Your task to perform on an android device: allow cookies in the chrome app Image 0: 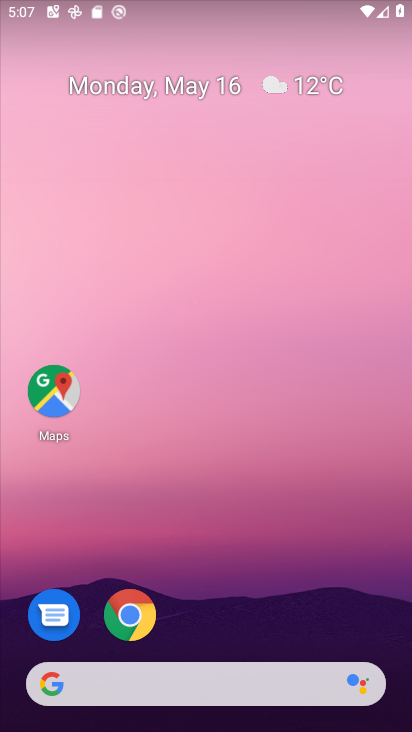
Step 0: drag from (231, 622) to (231, 182)
Your task to perform on an android device: allow cookies in the chrome app Image 1: 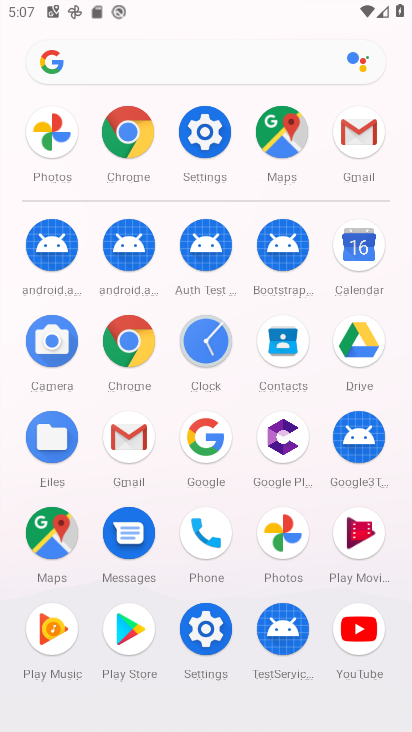
Step 1: click (126, 180)
Your task to perform on an android device: allow cookies in the chrome app Image 2: 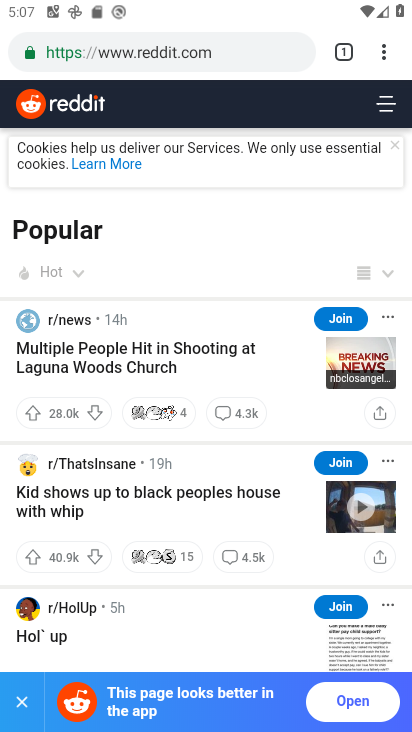
Step 2: click (382, 59)
Your task to perform on an android device: allow cookies in the chrome app Image 3: 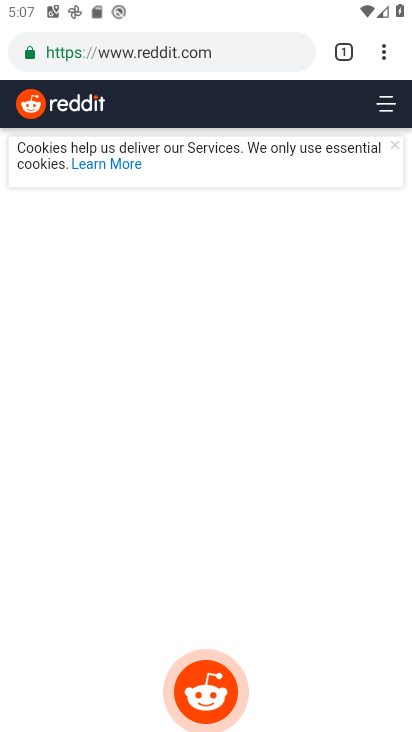
Step 3: click (387, 58)
Your task to perform on an android device: allow cookies in the chrome app Image 4: 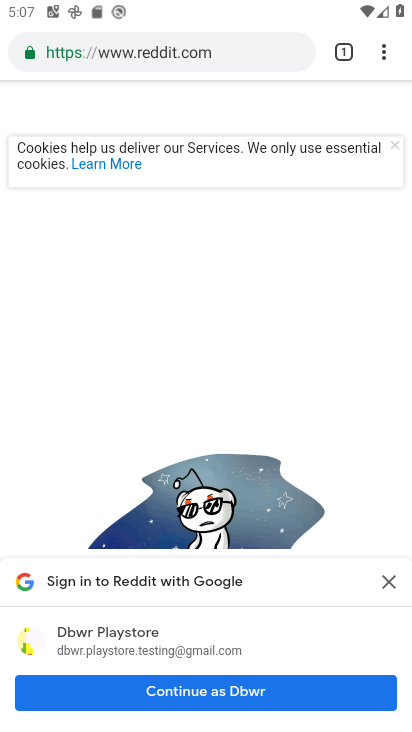
Step 4: click (386, 53)
Your task to perform on an android device: allow cookies in the chrome app Image 5: 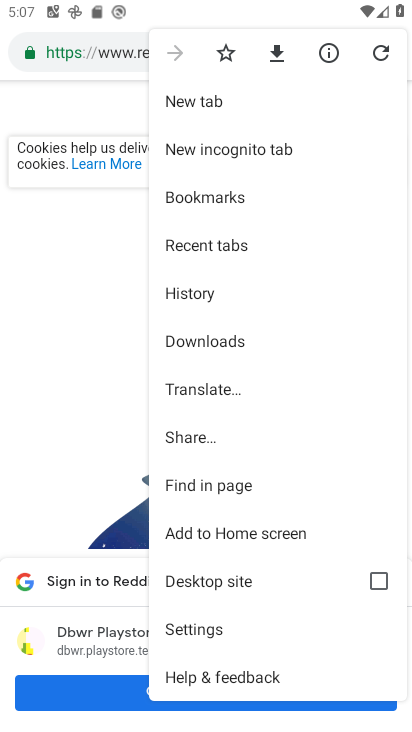
Step 5: click (191, 630)
Your task to perform on an android device: allow cookies in the chrome app Image 6: 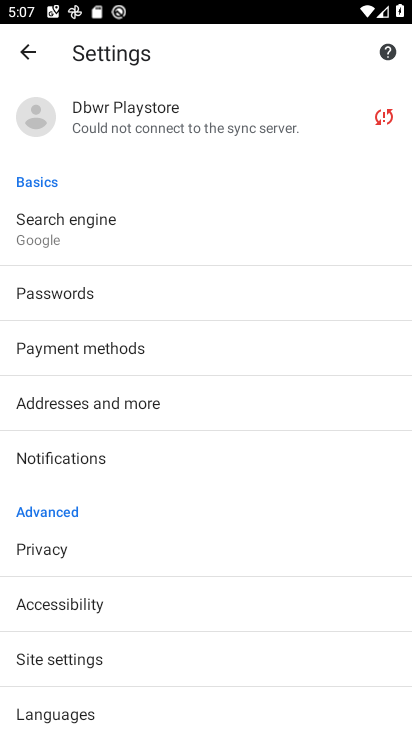
Step 6: drag from (109, 640) to (208, 251)
Your task to perform on an android device: allow cookies in the chrome app Image 7: 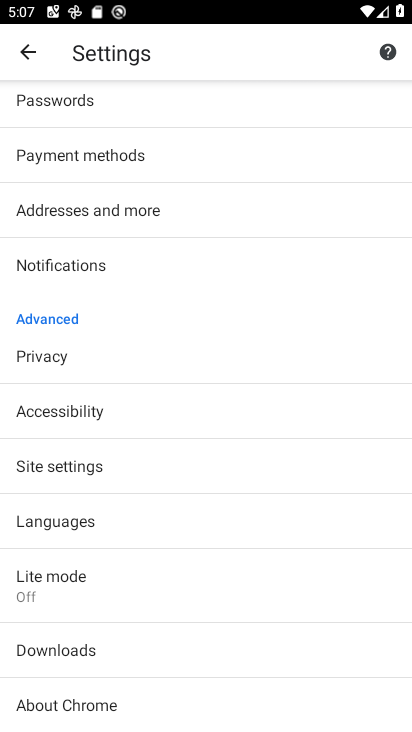
Step 7: drag from (105, 662) to (192, 339)
Your task to perform on an android device: allow cookies in the chrome app Image 8: 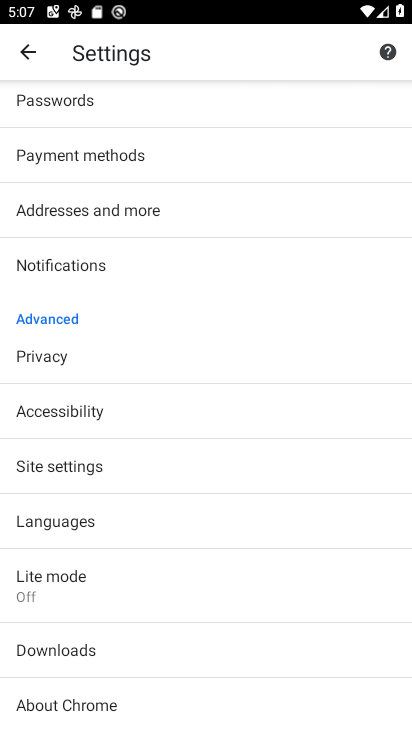
Step 8: drag from (148, 641) to (212, 274)
Your task to perform on an android device: allow cookies in the chrome app Image 9: 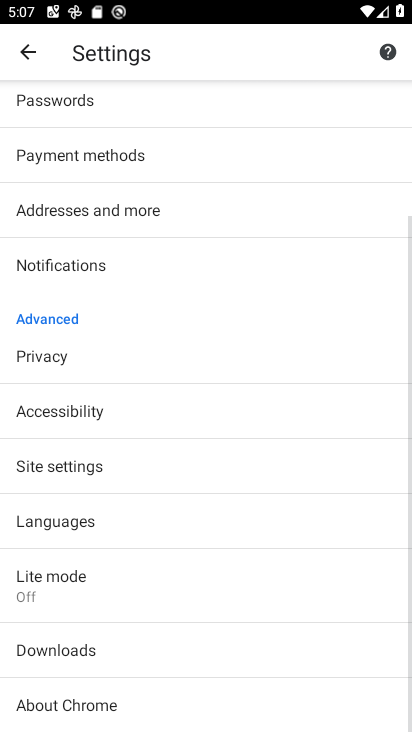
Step 9: drag from (196, 619) to (259, 151)
Your task to perform on an android device: allow cookies in the chrome app Image 10: 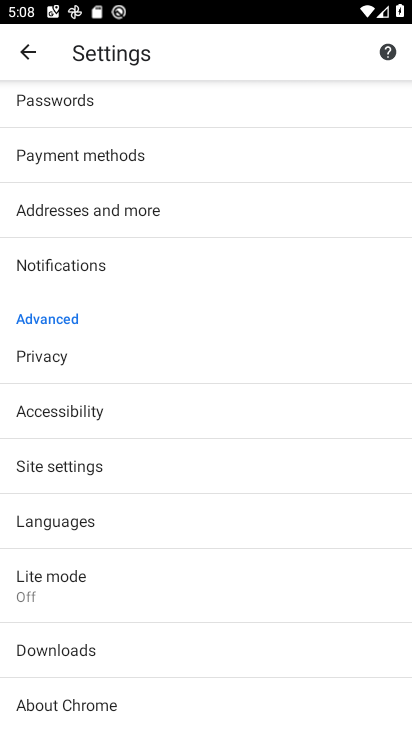
Step 10: click (80, 468)
Your task to perform on an android device: allow cookies in the chrome app Image 11: 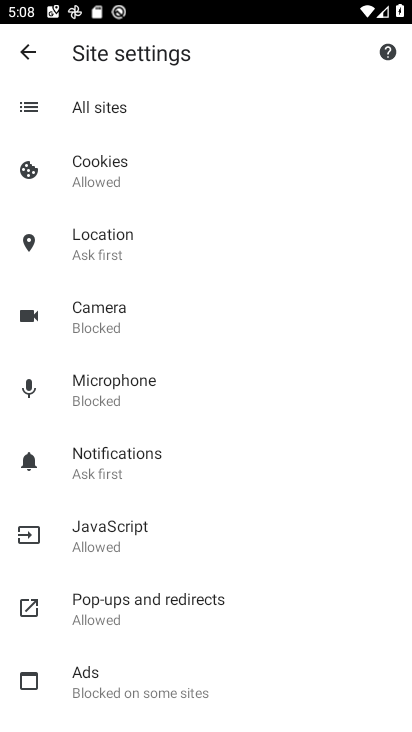
Step 11: click (120, 175)
Your task to perform on an android device: allow cookies in the chrome app Image 12: 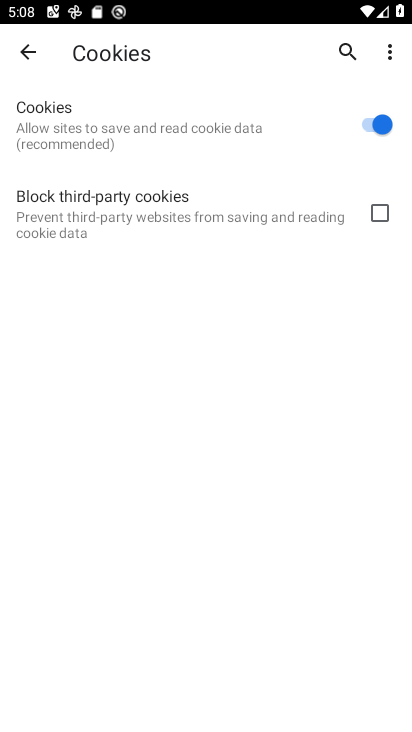
Step 12: task complete